Your task to perform on an android device: turn off translation in the chrome app Image 0: 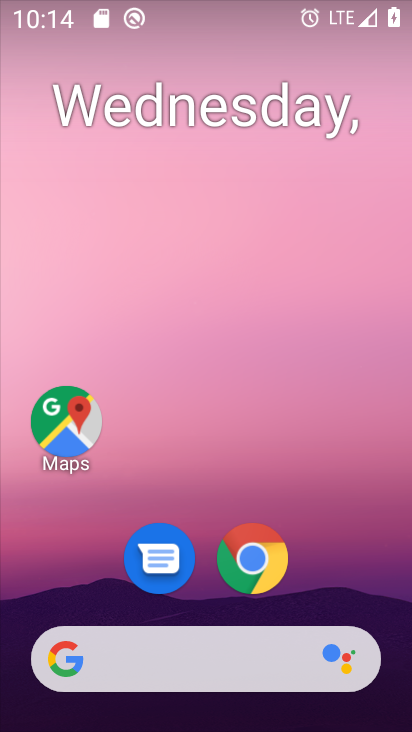
Step 0: drag from (338, 564) to (390, 114)
Your task to perform on an android device: turn off translation in the chrome app Image 1: 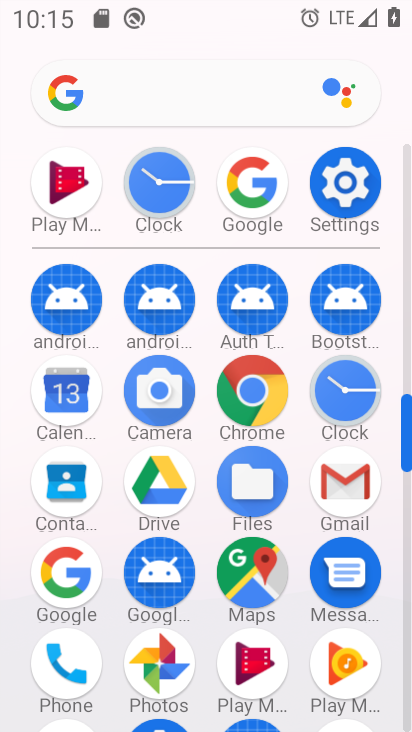
Step 1: click (268, 391)
Your task to perform on an android device: turn off translation in the chrome app Image 2: 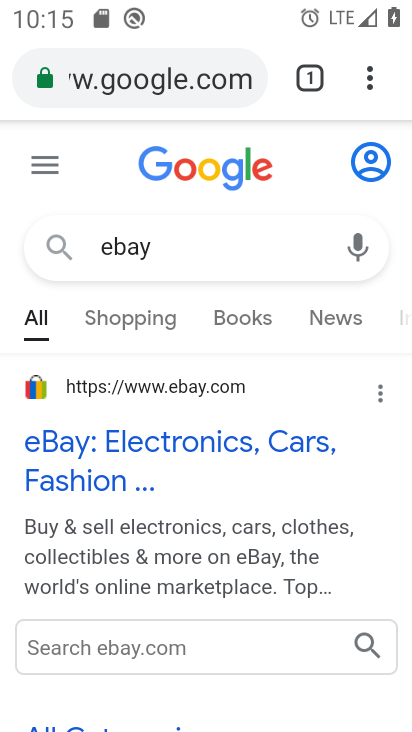
Step 2: click (370, 81)
Your task to perform on an android device: turn off translation in the chrome app Image 3: 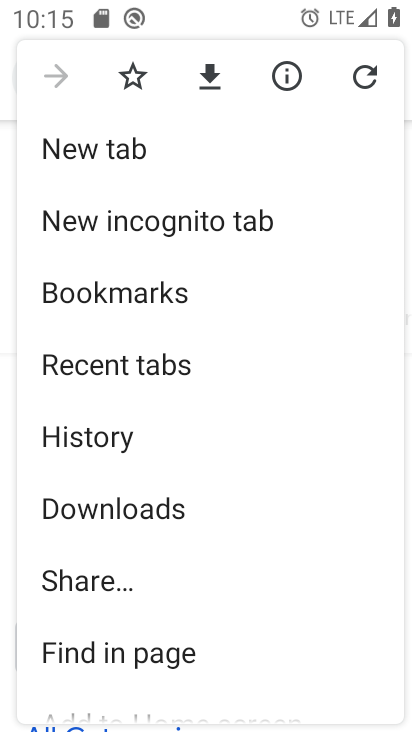
Step 3: drag from (311, 456) to (328, 375)
Your task to perform on an android device: turn off translation in the chrome app Image 4: 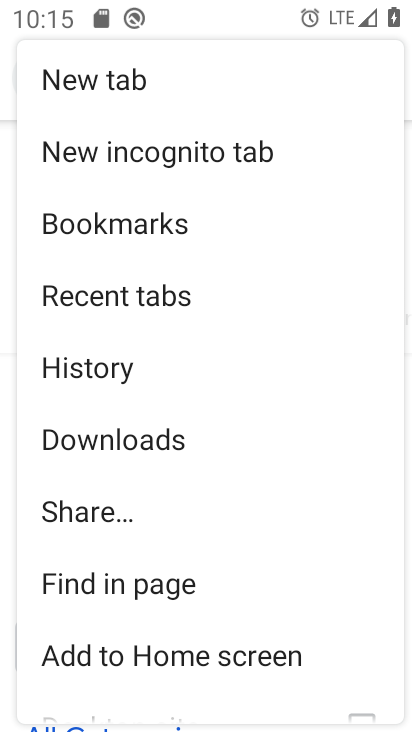
Step 4: drag from (331, 456) to (337, 387)
Your task to perform on an android device: turn off translation in the chrome app Image 5: 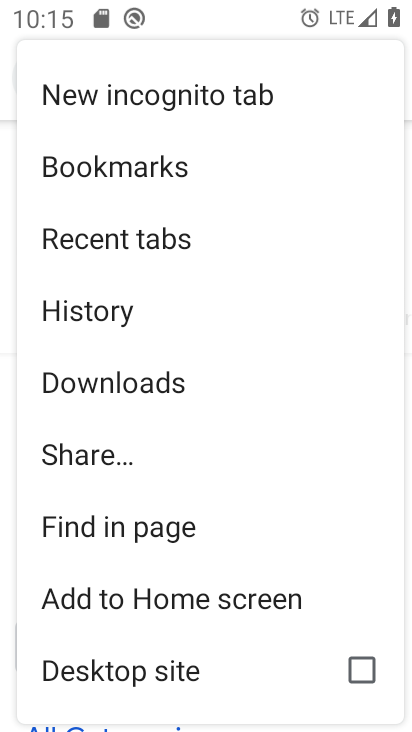
Step 5: drag from (321, 475) to (327, 392)
Your task to perform on an android device: turn off translation in the chrome app Image 6: 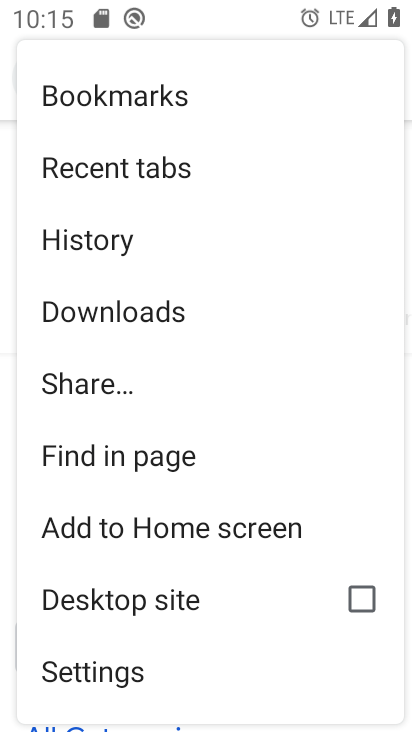
Step 6: drag from (320, 492) to (321, 364)
Your task to perform on an android device: turn off translation in the chrome app Image 7: 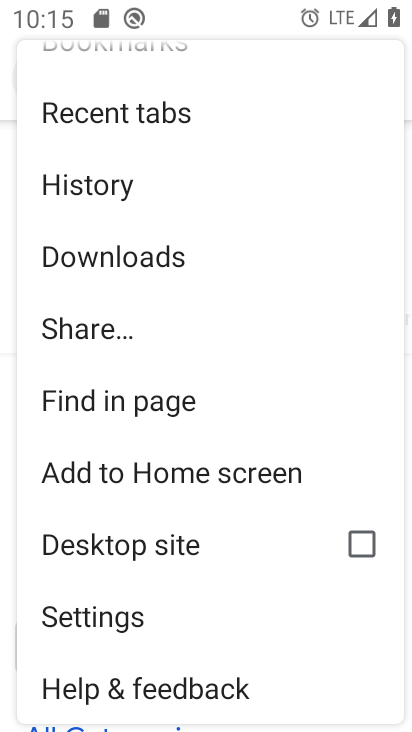
Step 7: click (193, 611)
Your task to perform on an android device: turn off translation in the chrome app Image 8: 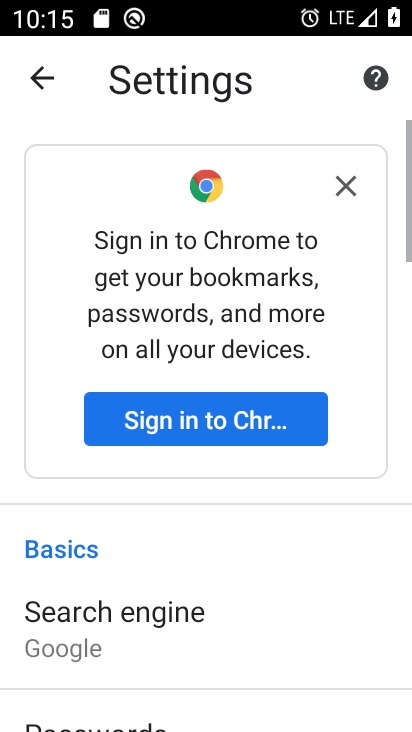
Step 8: drag from (323, 602) to (326, 526)
Your task to perform on an android device: turn off translation in the chrome app Image 9: 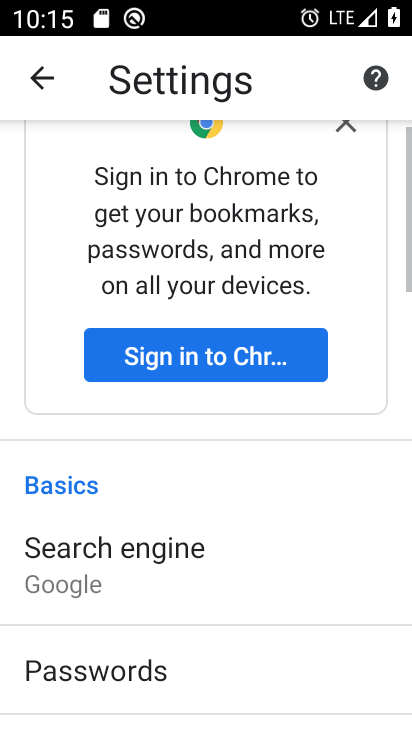
Step 9: drag from (333, 590) to (331, 502)
Your task to perform on an android device: turn off translation in the chrome app Image 10: 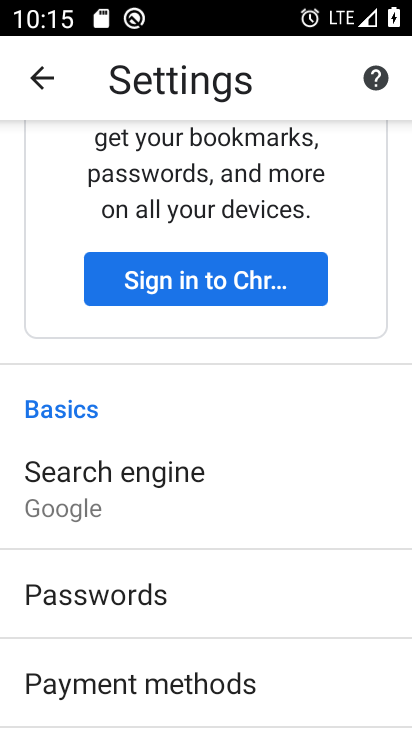
Step 10: drag from (338, 583) to (336, 501)
Your task to perform on an android device: turn off translation in the chrome app Image 11: 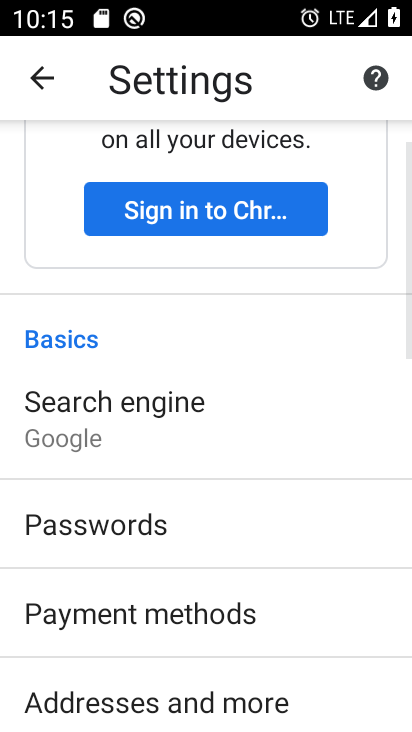
Step 11: drag from (343, 589) to (337, 513)
Your task to perform on an android device: turn off translation in the chrome app Image 12: 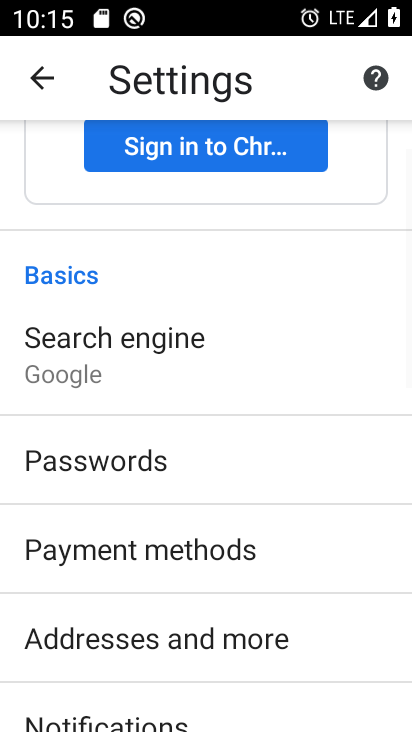
Step 12: drag from (336, 584) to (343, 494)
Your task to perform on an android device: turn off translation in the chrome app Image 13: 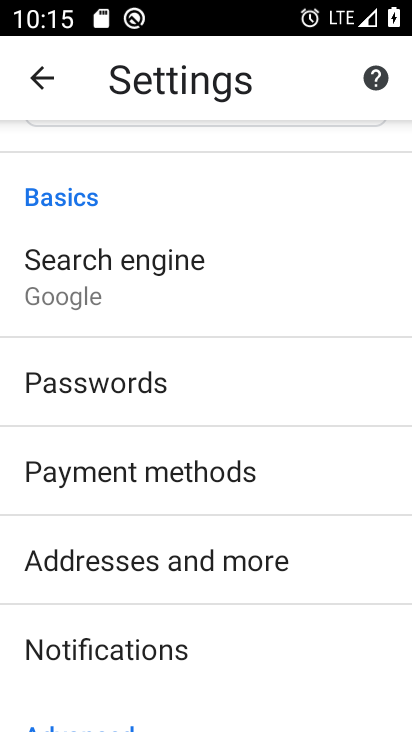
Step 13: drag from (348, 566) to (340, 474)
Your task to perform on an android device: turn off translation in the chrome app Image 14: 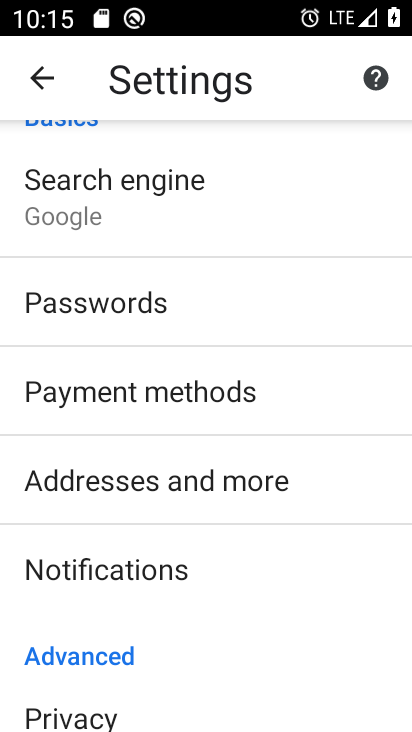
Step 14: drag from (337, 579) to (330, 482)
Your task to perform on an android device: turn off translation in the chrome app Image 15: 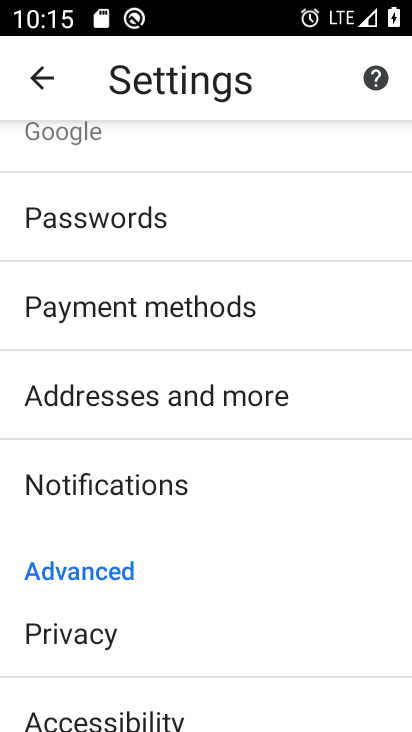
Step 15: drag from (320, 554) to (331, 445)
Your task to perform on an android device: turn off translation in the chrome app Image 16: 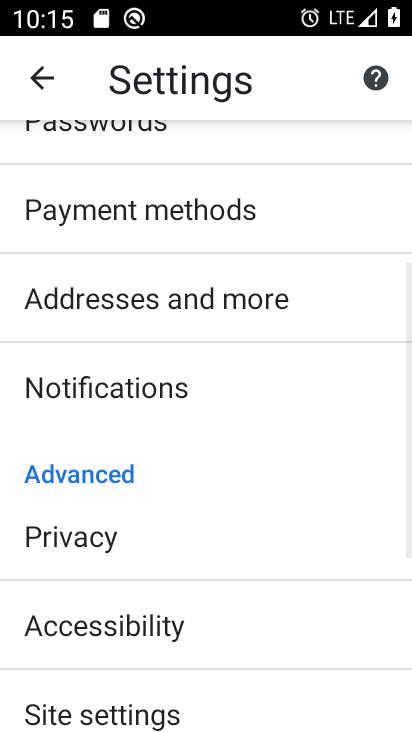
Step 16: drag from (326, 575) to (326, 473)
Your task to perform on an android device: turn off translation in the chrome app Image 17: 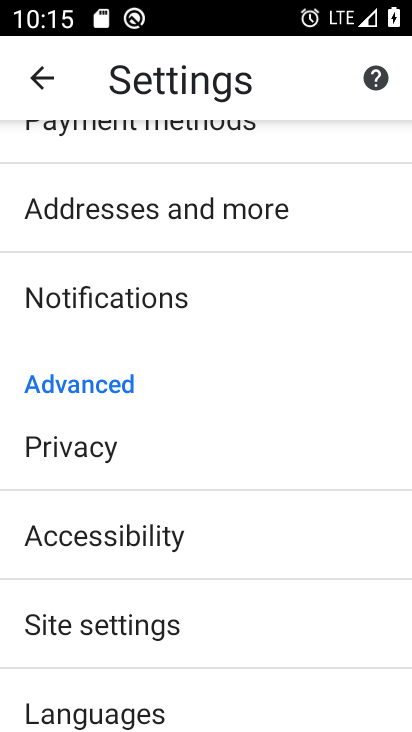
Step 17: drag from (309, 581) to (305, 438)
Your task to perform on an android device: turn off translation in the chrome app Image 18: 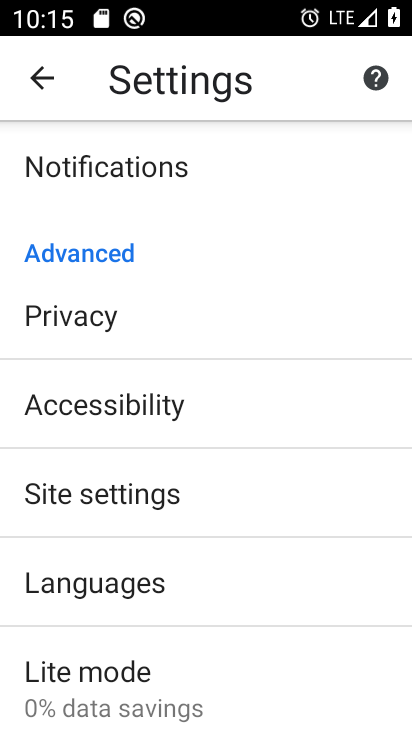
Step 18: drag from (301, 582) to (296, 459)
Your task to perform on an android device: turn off translation in the chrome app Image 19: 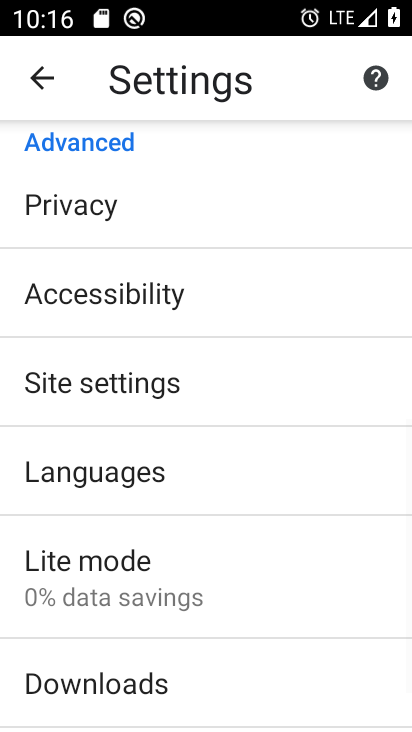
Step 19: drag from (284, 599) to (288, 437)
Your task to perform on an android device: turn off translation in the chrome app Image 20: 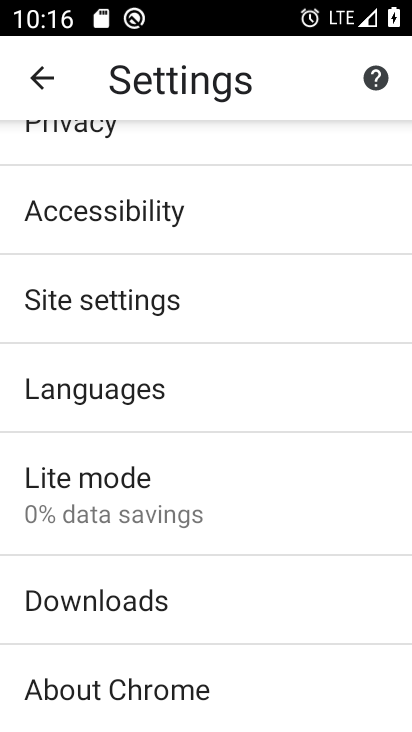
Step 20: click (273, 388)
Your task to perform on an android device: turn off translation in the chrome app Image 21: 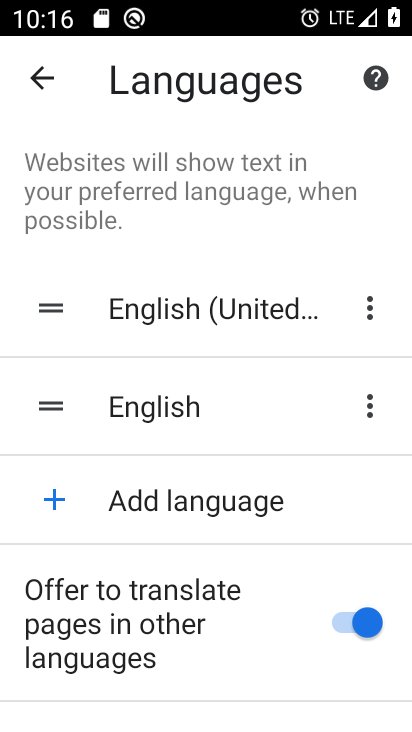
Step 21: click (361, 621)
Your task to perform on an android device: turn off translation in the chrome app Image 22: 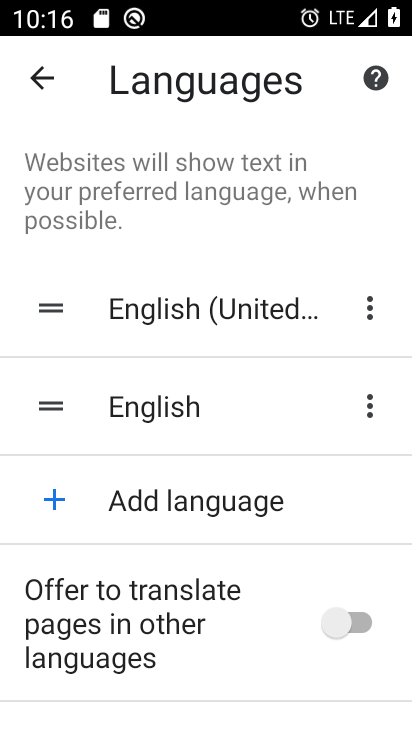
Step 22: task complete